Your task to perform on an android device: change notification settings in the gmail app Image 0: 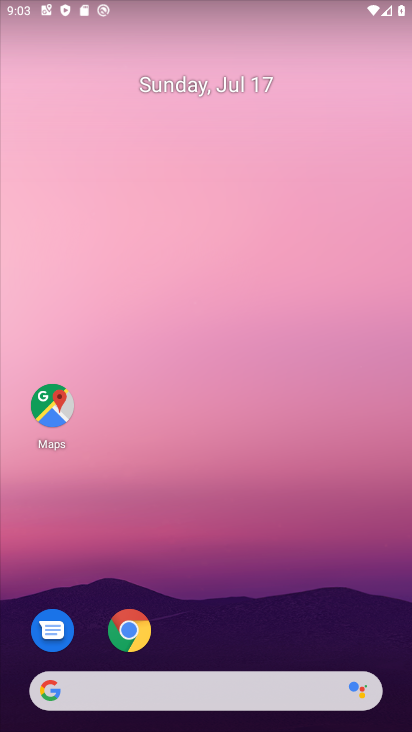
Step 0: drag from (312, 670) to (174, 2)
Your task to perform on an android device: change notification settings in the gmail app Image 1: 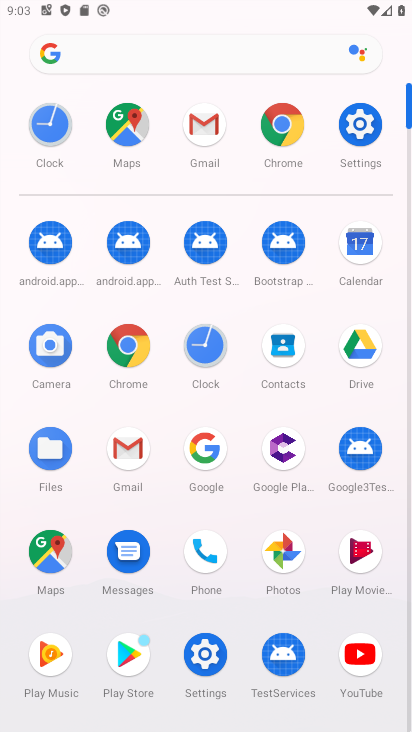
Step 1: click (135, 443)
Your task to perform on an android device: change notification settings in the gmail app Image 2: 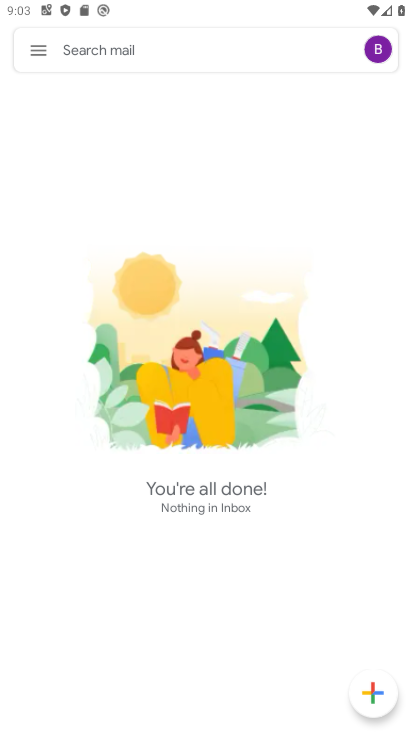
Step 2: click (34, 52)
Your task to perform on an android device: change notification settings in the gmail app Image 3: 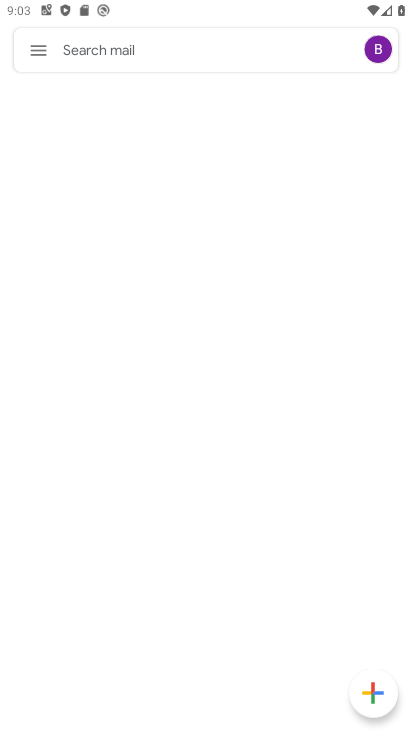
Step 3: click (105, 617)
Your task to perform on an android device: change notification settings in the gmail app Image 4: 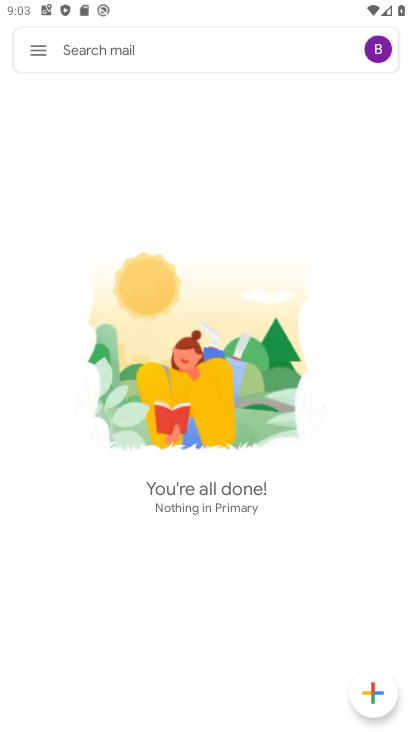
Step 4: click (50, 42)
Your task to perform on an android device: change notification settings in the gmail app Image 5: 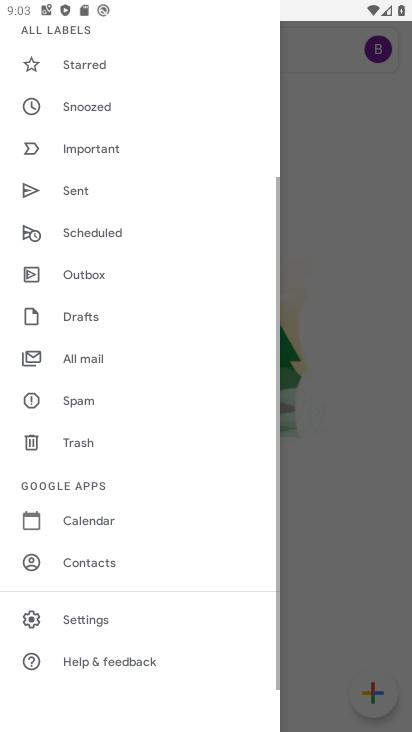
Step 5: click (120, 615)
Your task to perform on an android device: change notification settings in the gmail app Image 6: 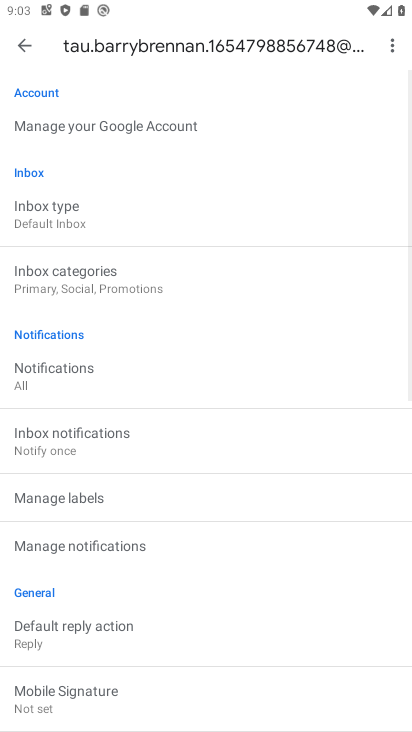
Step 6: click (110, 550)
Your task to perform on an android device: change notification settings in the gmail app Image 7: 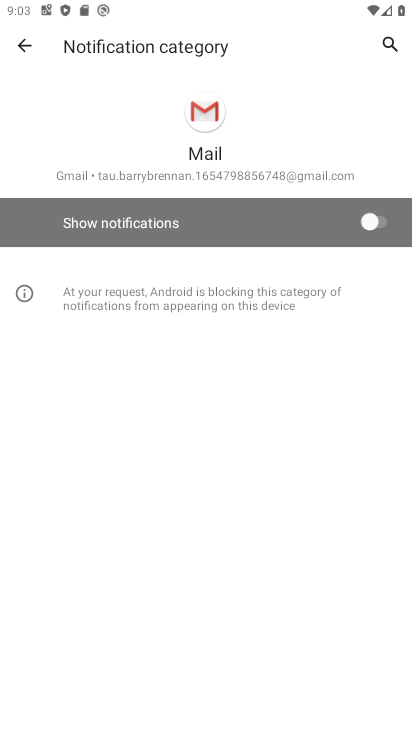
Step 7: click (374, 212)
Your task to perform on an android device: change notification settings in the gmail app Image 8: 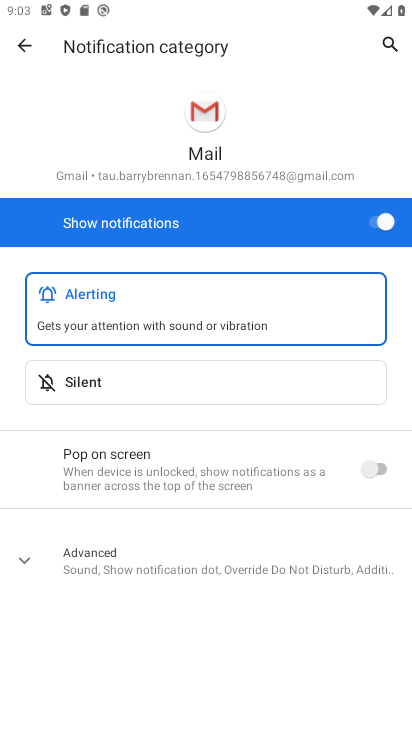
Step 8: task complete